Your task to perform on an android device: Is it going to rain today? Image 0: 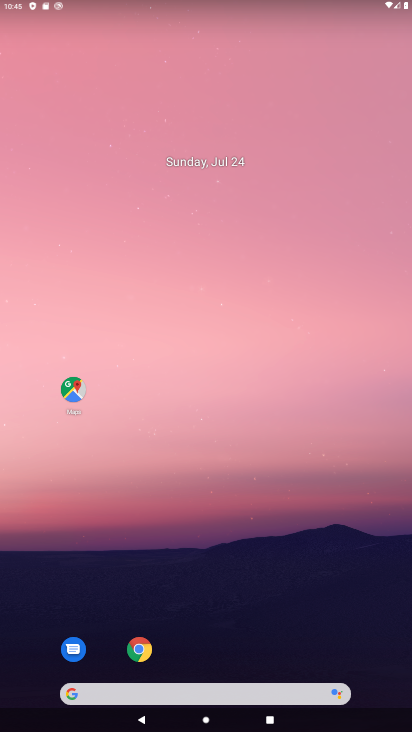
Step 0: click (146, 649)
Your task to perform on an android device: Is it going to rain today? Image 1: 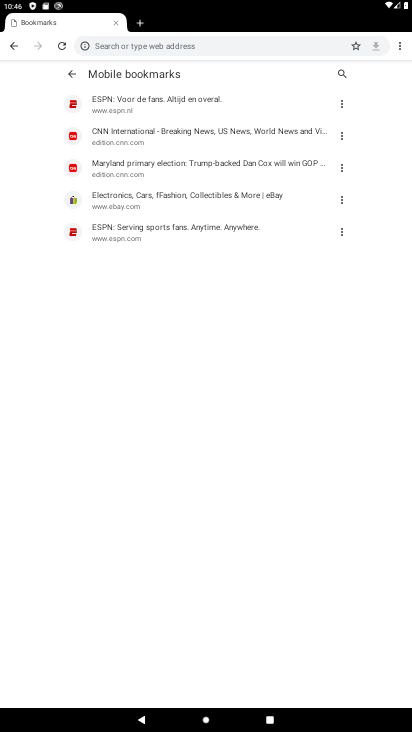
Step 1: click (271, 44)
Your task to perform on an android device: Is it going to rain today? Image 2: 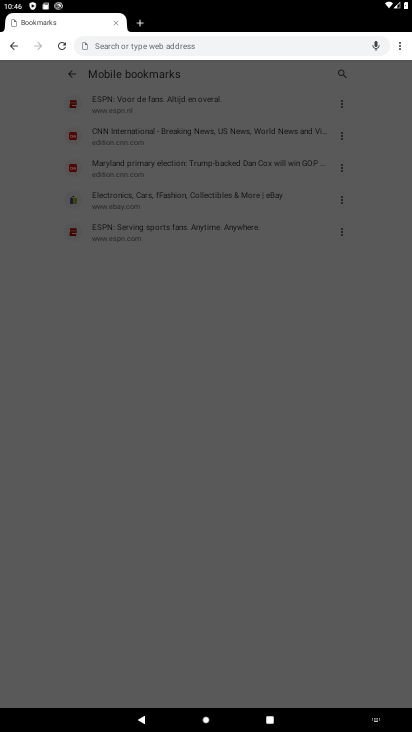
Step 2: type "Is it going to rain today?"
Your task to perform on an android device: Is it going to rain today? Image 3: 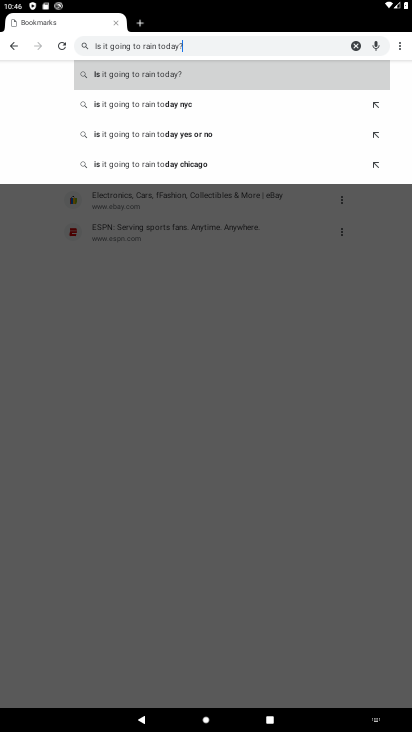
Step 3: click (207, 70)
Your task to perform on an android device: Is it going to rain today? Image 4: 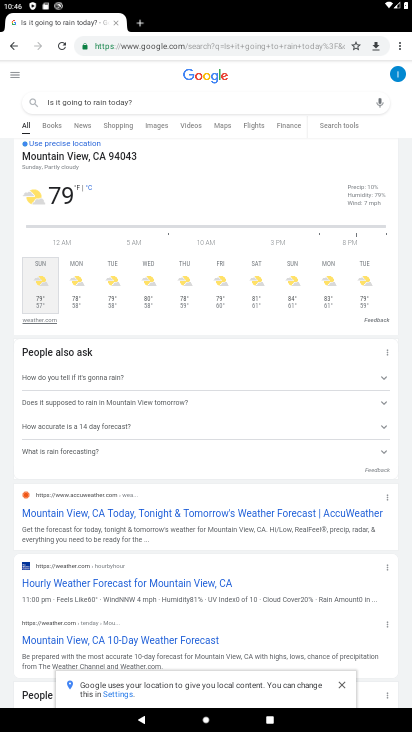
Step 4: task complete